Your task to perform on an android device: What is the recent news? Image 0: 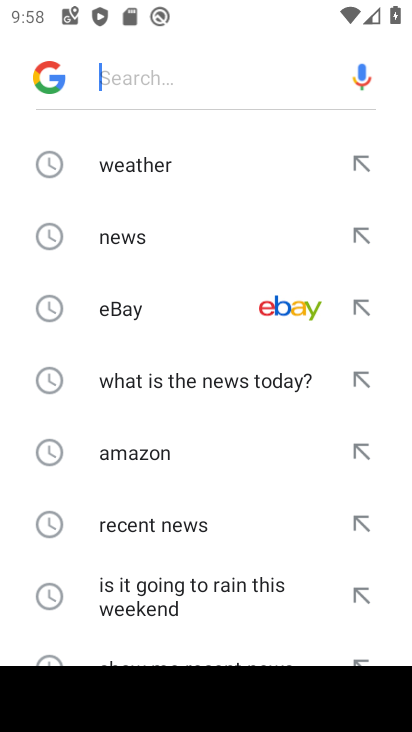
Step 0: press home button
Your task to perform on an android device: What is the recent news? Image 1: 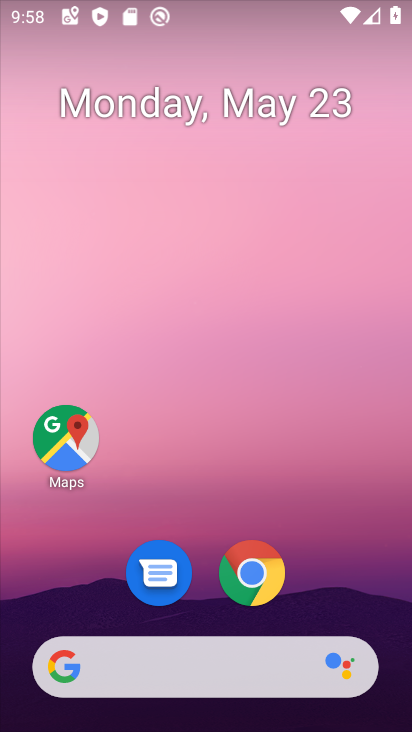
Step 1: drag from (3, 268) to (408, 304)
Your task to perform on an android device: What is the recent news? Image 2: 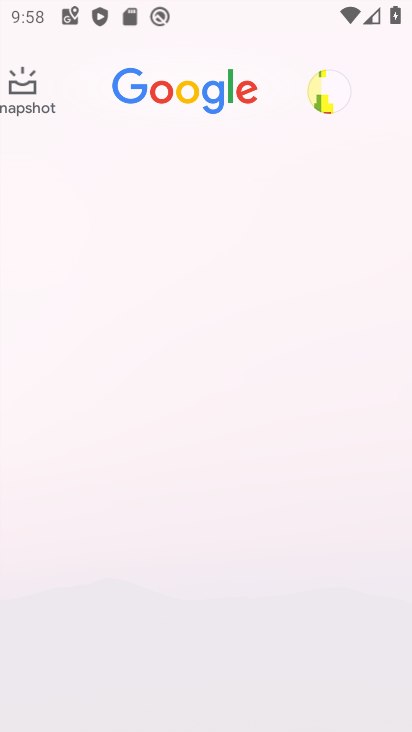
Step 2: drag from (181, 311) to (390, 344)
Your task to perform on an android device: What is the recent news? Image 3: 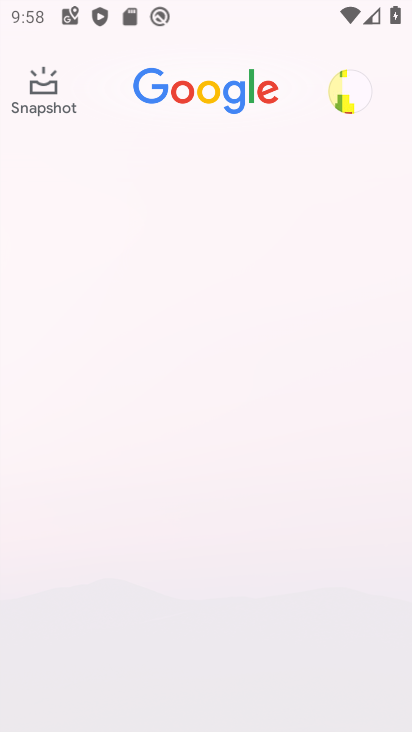
Step 3: drag from (212, 192) to (255, 435)
Your task to perform on an android device: What is the recent news? Image 4: 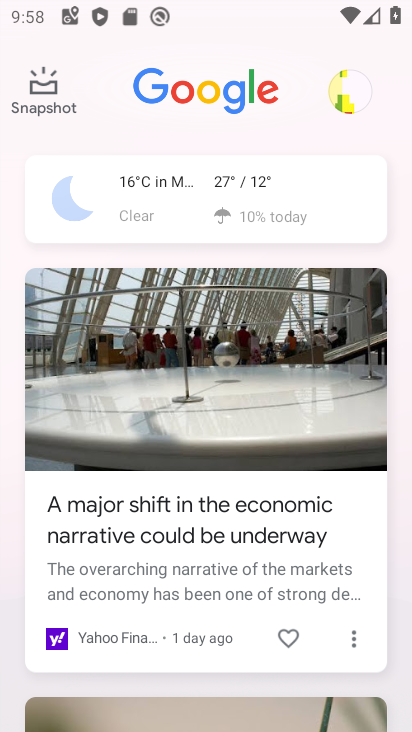
Step 4: drag from (383, 569) to (392, 459)
Your task to perform on an android device: What is the recent news? Image 5: 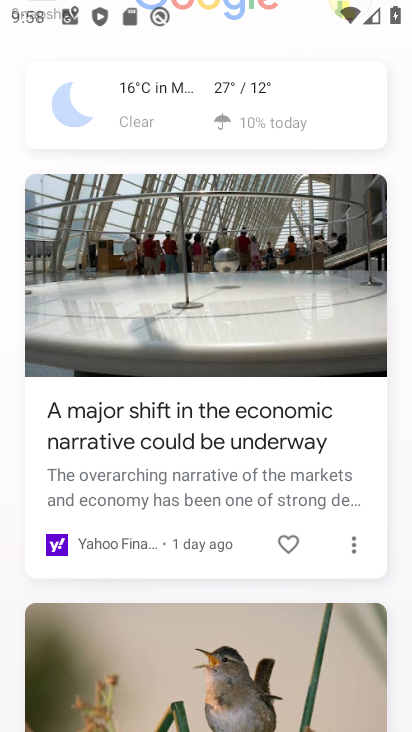
Step 5: drag from (395, 552) to (408, 458)
Your task to perform on an android device: What is the recent news? Image 6: 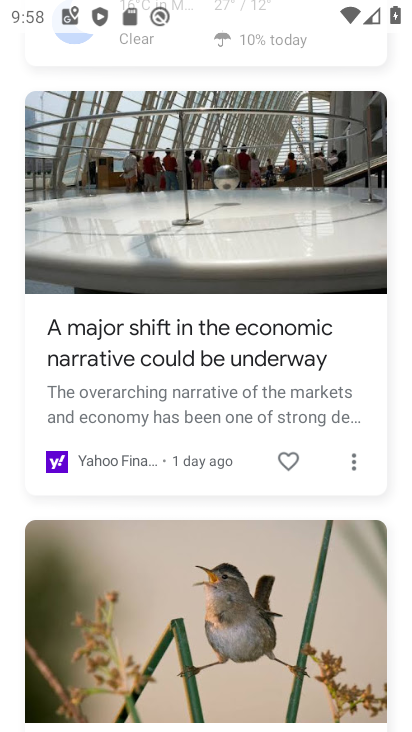
Step 6: drag from (380, 559) to (401, 501)
Your task to perform on an android device: What is the recent news? Image 7: 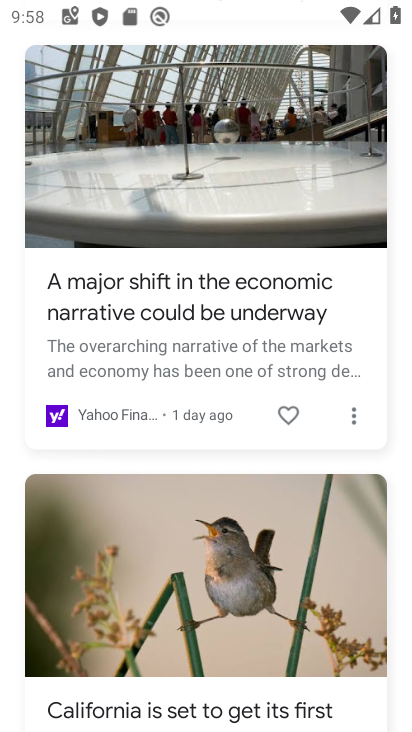
Step 7: click (402, 552)
Your task to perform on an android device: What is the recent news? Image 8: 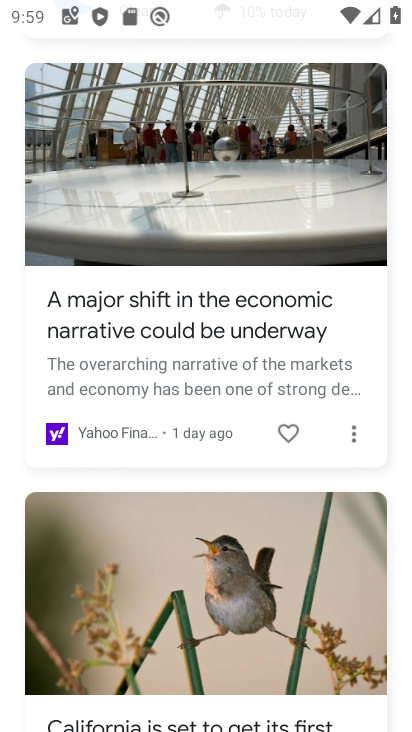
Step 8: task complete